Your task to perform on an android device: Open the calendar app, open the side menu, and click the "Day" option Image 0: 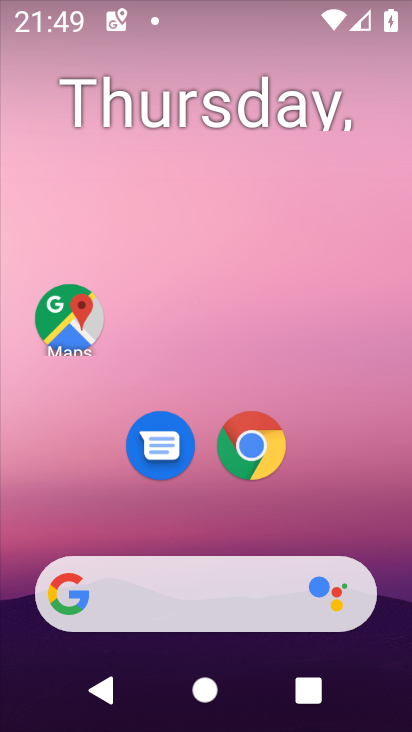
Step 0: press home button
Your task to perform on an android device: Open the calendar app, open the side menu, and click the "Day" option Image 1: 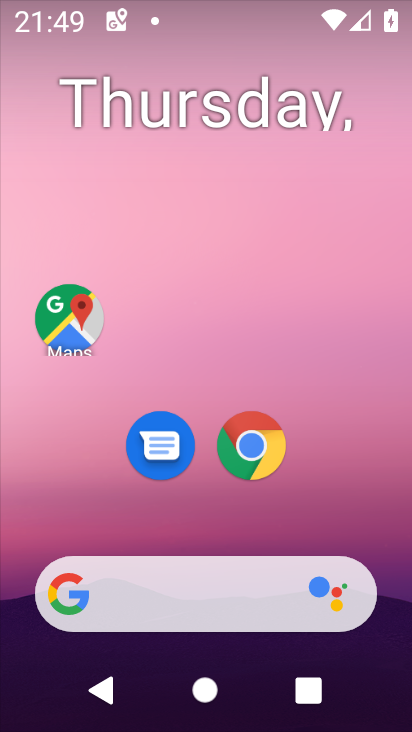
Step 1: drag from (195, 273) to (237, 141)
Your task to perform on an android device: Open the calendar app, open the side menu, and click the "Day" option Image 2: 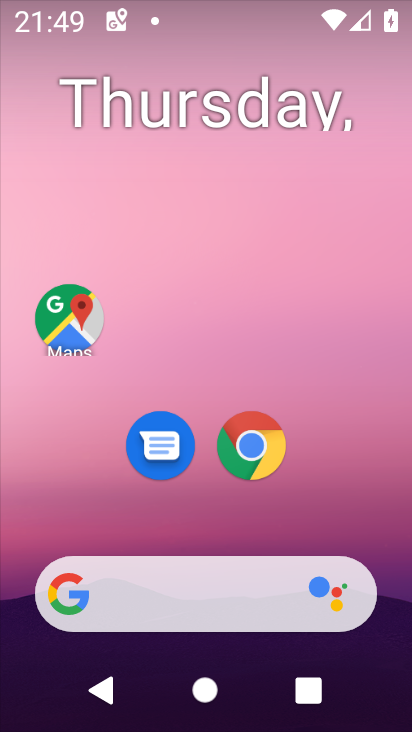
Step 2: drag from (7, 633) to (194, 208)
Your task to perform on an android device: Open the calendar app, open the side menu, and click the "Day" option Image 3: 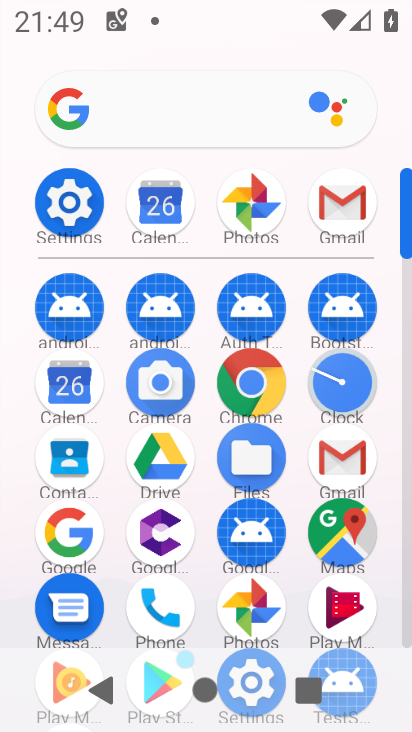
Step 3: click (65, 384)
Your task to perform on an android device: Open the calendar app, open the side menu, and click the "Day" option Image 4: 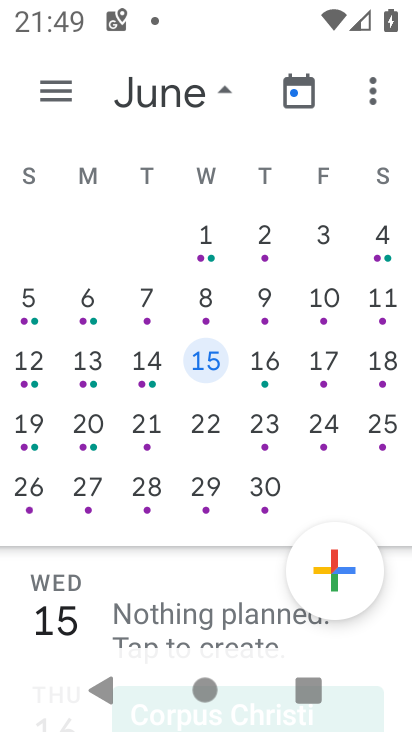
Step 4: click (66, 92)
Your task to perform on an android device: Open the calendar app, open the side menu, and click the "Day" option Image 5: 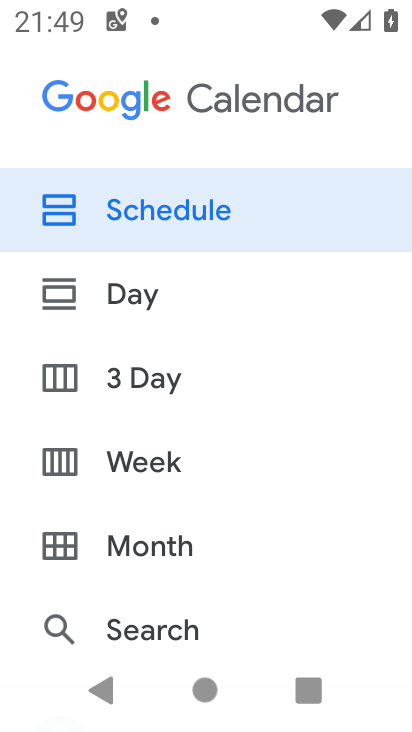
Step 5: click (178, 303)
Your task to perform on an android device: Open the calendar app, open the side menu, and click the "Day" option Image 6: 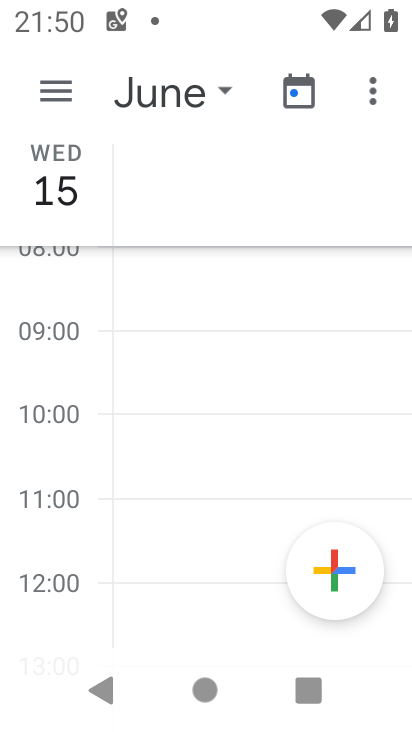
Step 6: task complete